Your task to perform on an android device: Open the map Image 0: 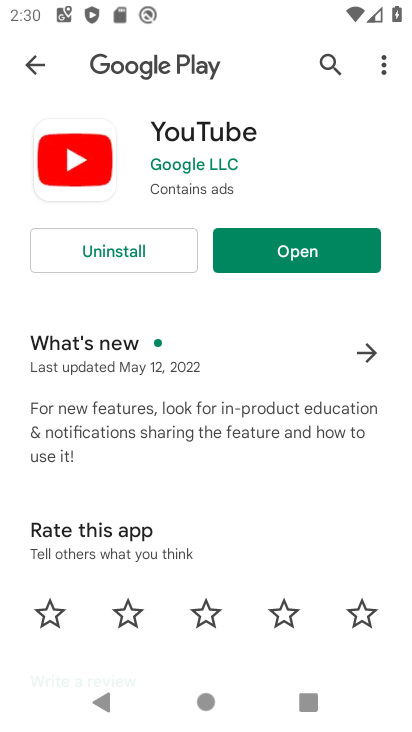
Step 0: press home button
Your task to perform on an android device: Open the map Image 1: 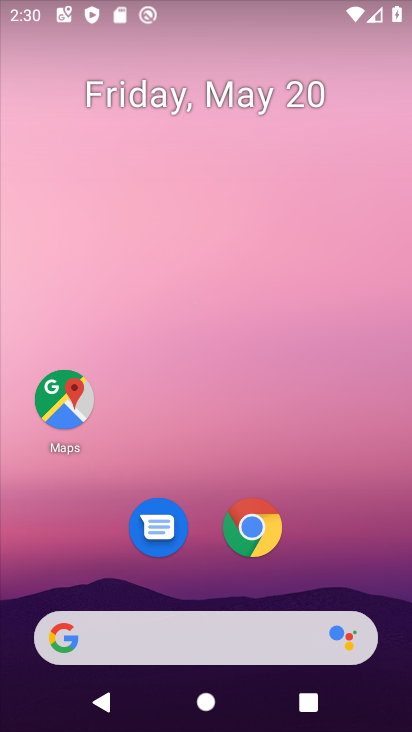
Step 1: click (42, 414)
Your task to perform on an android device: Open the map Image 2: 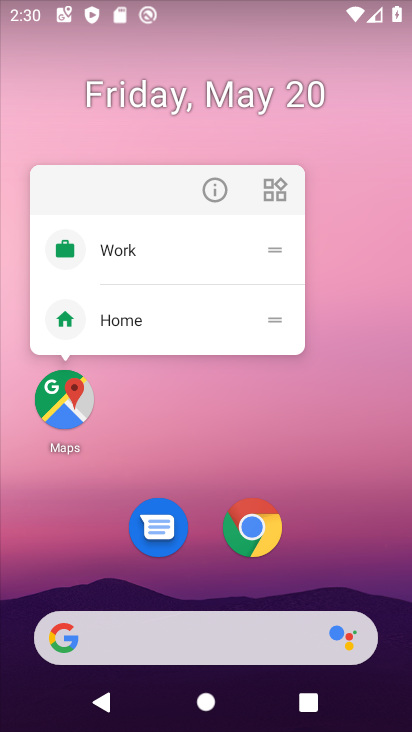
Step 2: click (42, 414)
Your task to perform on an android device: Open the map Image 3: 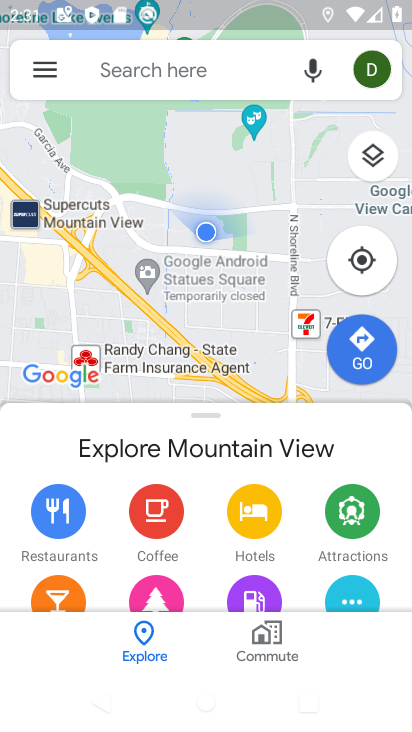
Step 3: task complete